Your task to perform on an android device: Go to wifi settings Image 0: 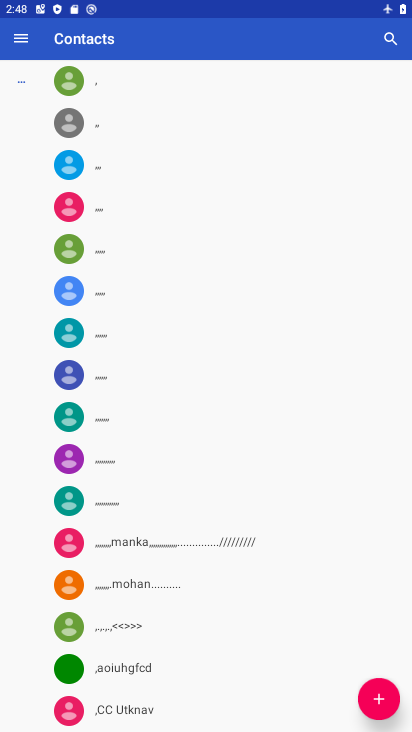
Step 0: press home button
Your task to perform on an android device: Go to wifi settings Image 1: 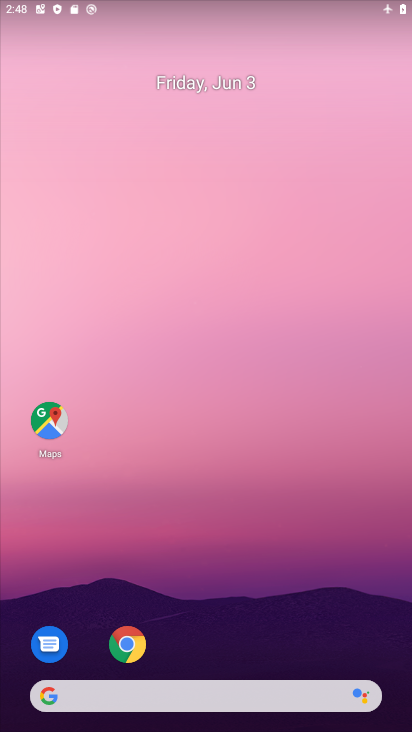
Step 1: drag from (199, 642) to (205, 257)
Your task to perform on an android device: Go to wifi settings Image 2: 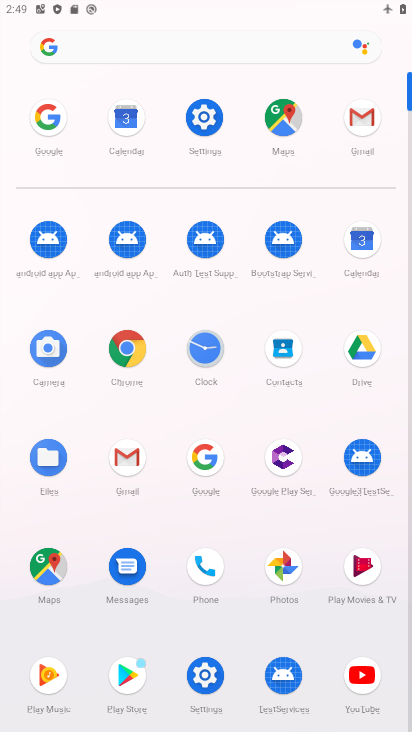
Step 2: click (205, 128)
Your task to perform on an android device: Go to wifi settings Image 3: 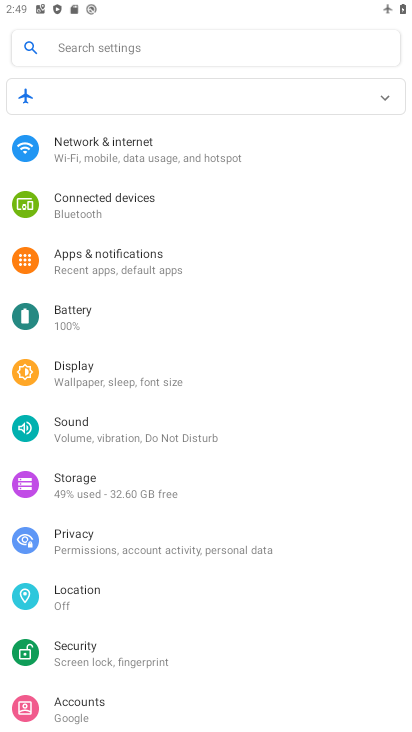
Step 3: click (182, 158)
Your task to perform on an android device: Go to wifi settings Image 4: 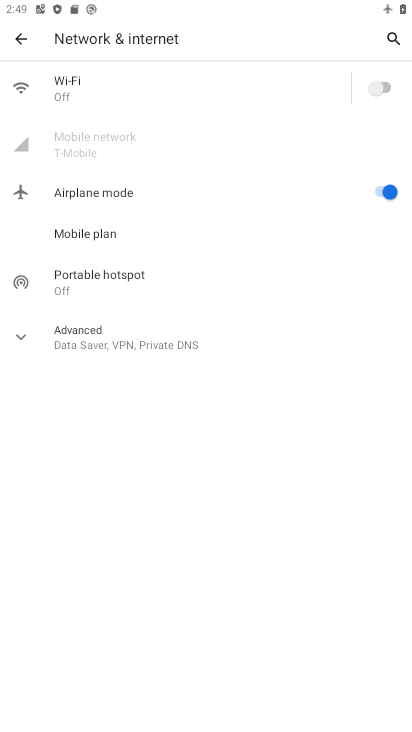
Step 4: click (114, 87)
Your task to perform on an android device: Go to wifi settings Image 5: 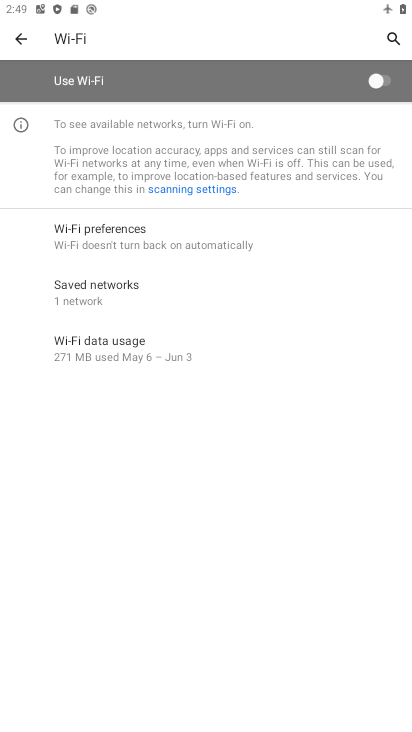
Step 5: task complete